Your task to perform on an android device: Clear the shopping cart on ebay.com. Search for "logitech g pro" on ebay.com, select the first entry, add it to the cart, then select checkout. Image 0: 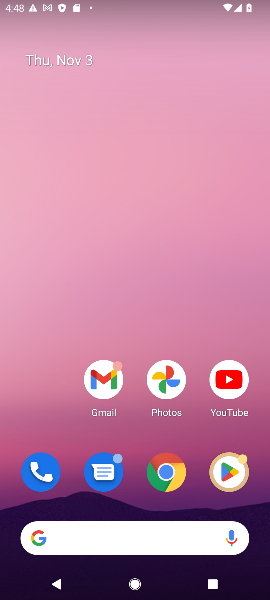
Step 0: click (168, 469)
Your task to perform on an android device: Clear the shopping cart on ebay.com. Search for "logitech g pro" on ebay.com, select the first entry, add it to the cart, then select checkout. Image 1: 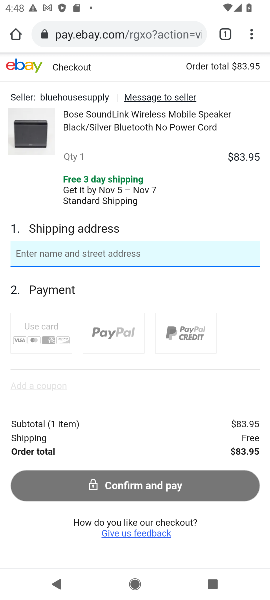
Step 1: click (119, 36)
Your task to perform on an android device: Clear the shopping cart on ebay.com. Search for "logitech g pro" on ebay.com, select the first entry, add it to the cart, then select checkout. Image 2: 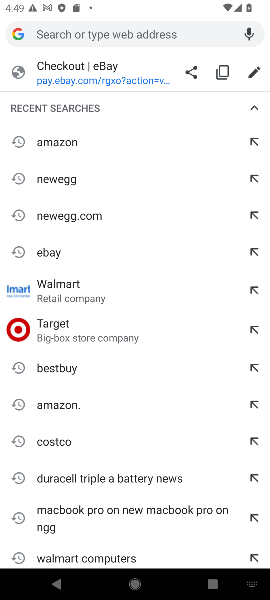
Step 2: type "ebay.com"
Your task to perform on an android device: Clear the shopping cart on ebay.com. Search for "logitech g pro" on ebay.com, select the first entry, add it to the cart, then select checkout. Image 3: 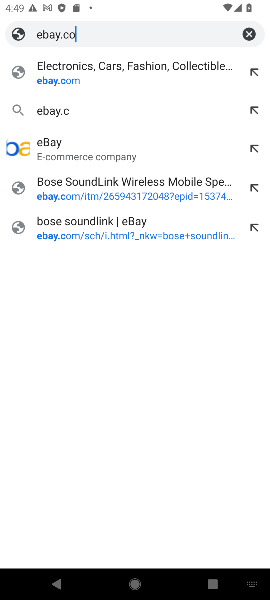
Step 3: type ""
Your task to perform on an android device: Clear the shopping cart on ebay.com. Search for "logitech g pro" on ebay.com, select the first entry, add it to the cart, then select checkout. Image 4: 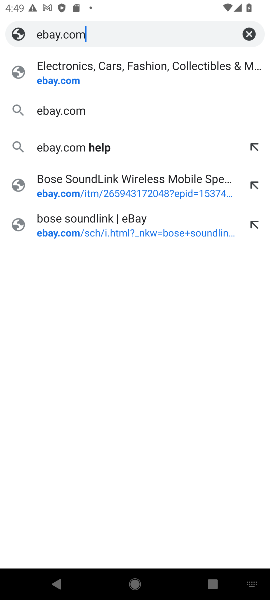
Step 4: press enter
Your task to perform on an android device: Clear the shopping cart on ebay.com. Search for "logitech g pro" on ebay.com, select the first entry, add it to the cart, then select checkout. Image 5: 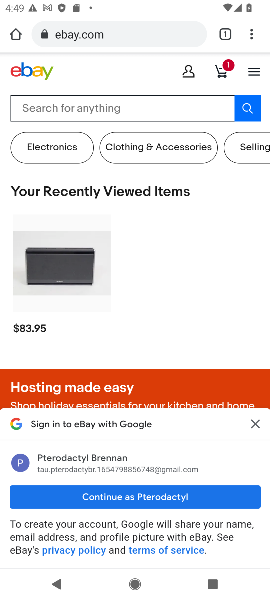
Step 5: click (250, 425)
Your task to perform on an android device: Clear the shopping cart on ebay.com. Search for "logitech g pro" on ebay.com, select the first entry, add it to the cart, then select checkout. Image 6: 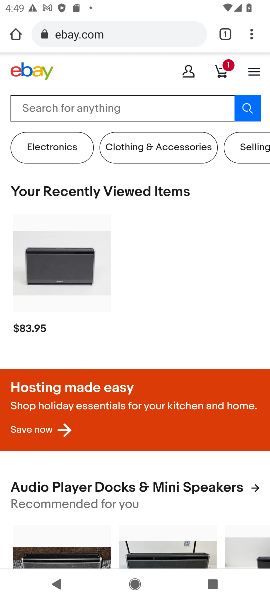
Step 6: click (228, 68)
Your task to perform on an android device: Clear the shopping cart on ebay.com. Search for "logitech g pro" on ebay.com, select the first entry, add it to the cart, then select checkout. Image 7: 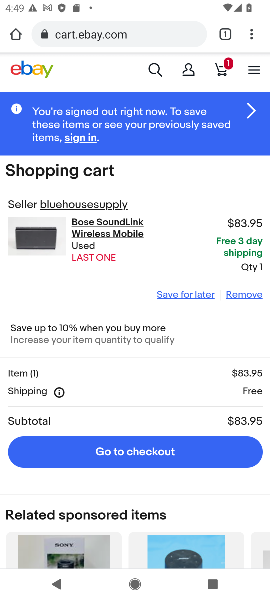
Step 7: drag from (110, 401) to (144, 222)
Your task to perform on an android device: Clear the shopping cart on ebay.com. Search for "logitech g pro" on ebay.com, select the first entry, add it to the cart, then select checkout. Image 8: 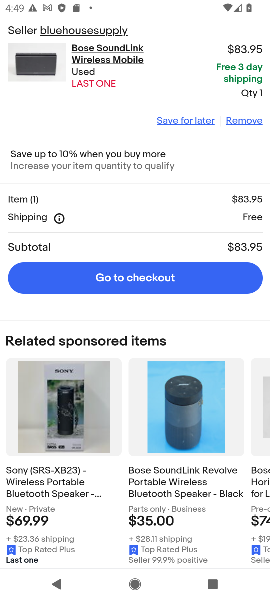
Step 8: click (252, 121)
Your task to perform on an android device: Clear the shopping cart on ebay.com. Search for "logitech g pro" on ebay.com, select the first entry, add it to the cart, then select checkout. Image 9: 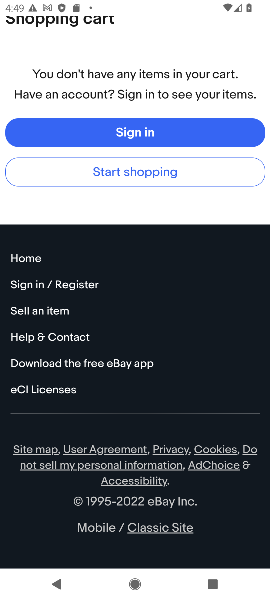
Step 9: drag from (211, 104) to (188, 528)
Your task to perform on an android device: Clear the shopping cart on ebay.com. Search for "logitech g pro" on ebay.com, select the first entry, add it to the cart, then select checkout. Image 10: 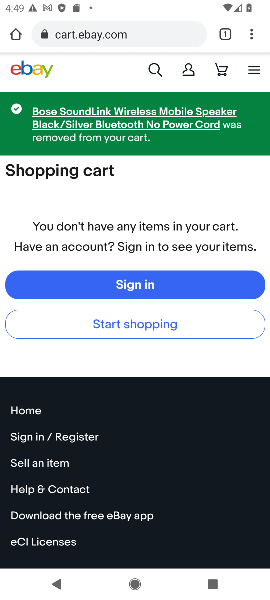
Step 10: click (151, 69)
Your task to perform on an android device: Clear the shopping cart on ebay.com. Search for "logitech g pro" on ebay.com, select the first entry, add it to the cart, then select checkout. Image 11: 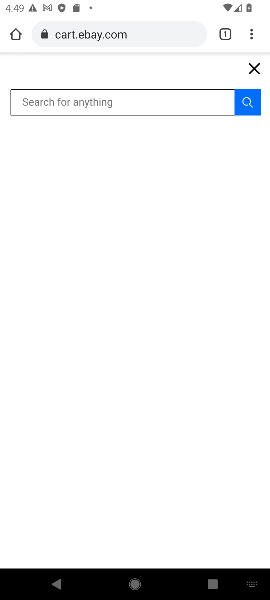
Step 11: type "logitech g pro"
Your task to perform on an android device: Clear the shopping cart on ebay.com. Search for "logitech g pro" on ebay.com, select the first entry, add it to the cart, then select checkout. Image 12: 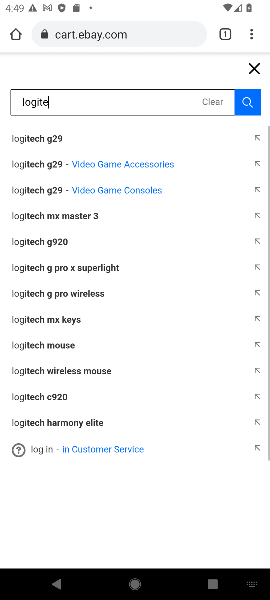
Step 12: type ""
Your task to perform on an android device: Clear the shopping cart on ebay.com. Search for "logitech g pro" on ebay.com, select the first entry, add it to the cart, then select checkout. Image 13: 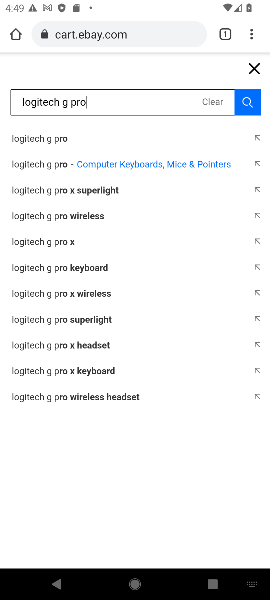
Step 13: click (254, 104)
Your task to perform on an android device: Clear the shopping cart on ebay.com. Search for "logitech g pro" on ebay.com, select the first entry, add it to the cart, then select checkout. Image 14: 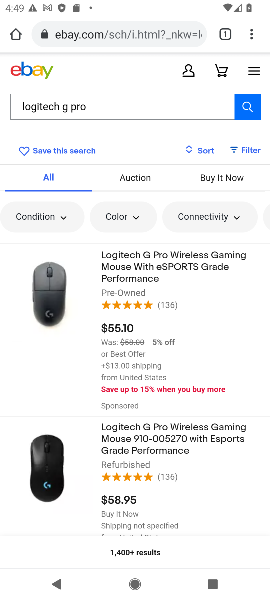
Step 14: click (189, 263)
Your task to perform on an android device: Clear the shopping cart on ebay.com. Search for "logitech g pro" on ebay.com, select the first entry, add it to the cart, then select checkout. Image 15: 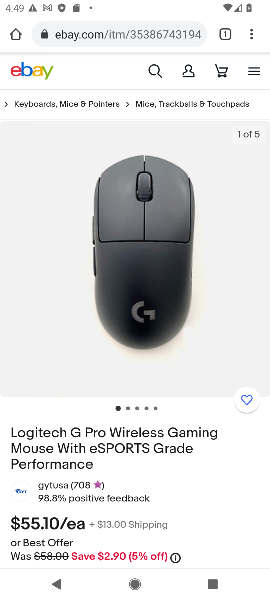
Step 15: drag from (194, 491) to (192, 148)
Your task to perform on an android device: Clear the shopping cart on ebay.com. Search for "logitech g pro" on ebay.com, select the first entry, add it to the cart, then select checkout. Image 16: 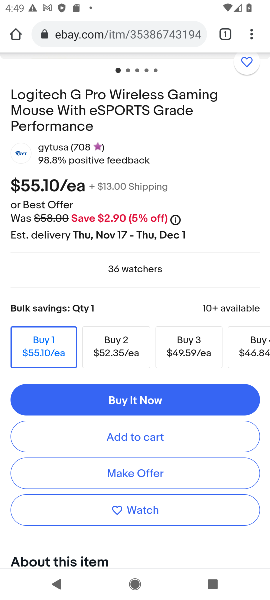
Step 16: click (150, 439)
Your task to perform on an android device: Clear the shopping cart on ebay.com. Search for "logitech g pro" on ebay.com, select the first entry, add it to the cart, then select checkout. Image 17: 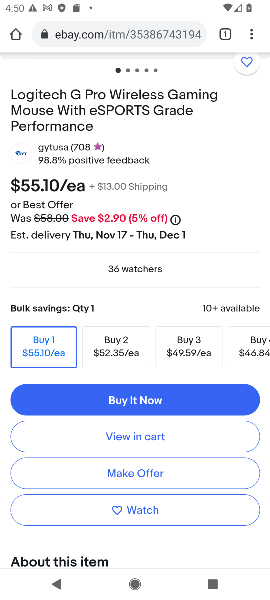
Step 17: click (151, 443)
Your task to perform on an android device: Clear the shopping cart on ebay.com. Search for "logitech g pro" on ebay.com, select the first entry, add it to the cart, then select checkout. Image 18: 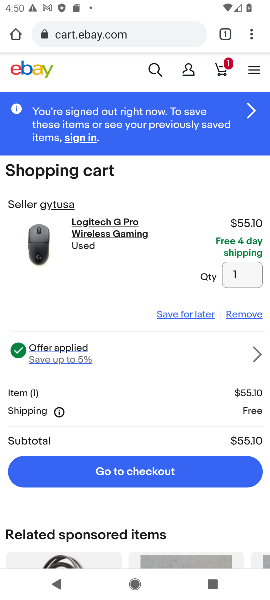
Step 18: click (166, 465)
Your task to perform on an android device: Clear the shopping cart on ebay.com. Search for "logitech g pro" on ebay.com, select the first entry, add it to the cart, then select checkout. Image 19: 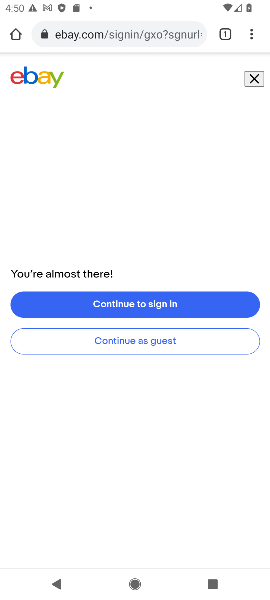
Step 19: click (152, 346)
Your task to perform on an android device: Clear the shopping cart on ebay.com. Search for "logitech g pro" on ebay.com, select the first entry, add it to the cart, then select checkout. Image 20: 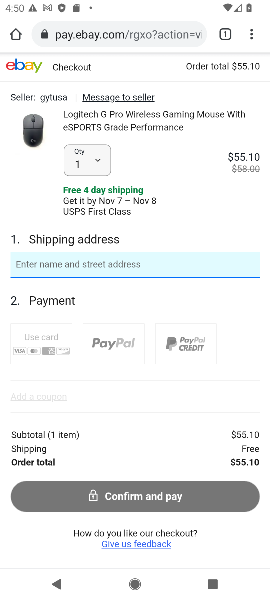
Step 20: task complete